Your task to perform on an android device: Do I have any events today? Image 0: 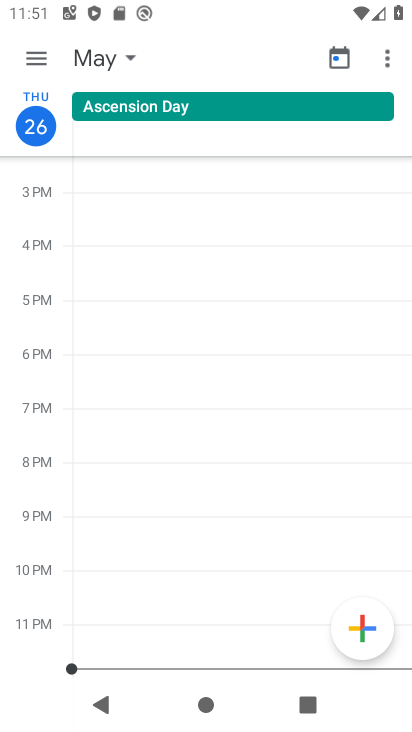
Step 0: press home button
Your task to perform on an android device: Do I have any events today? Image 1: 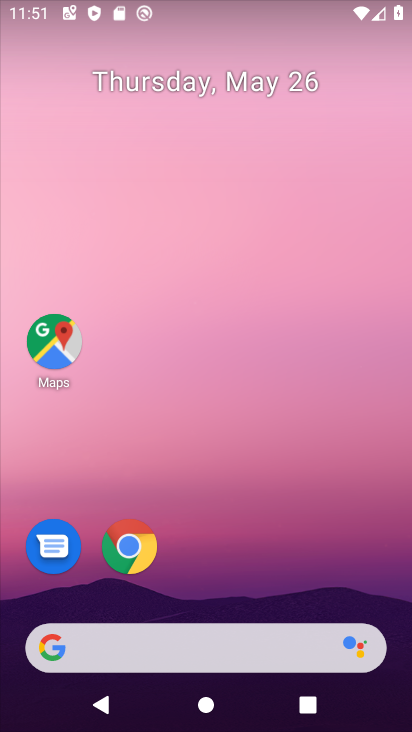
Step 1: drag from (237, 417) to (179, 142)
Your task to perform on an android device: Do I have any events today? Image 2: 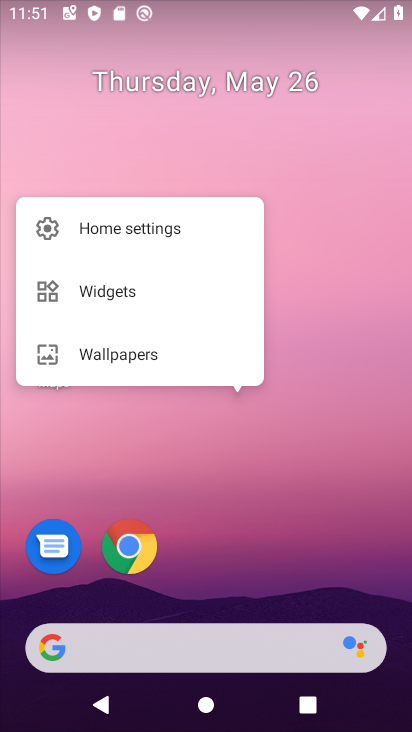
Step 2: drag from (212, 476) to (204, 88)
Your task to perform on an android device: Do I have any events today? Image 3: 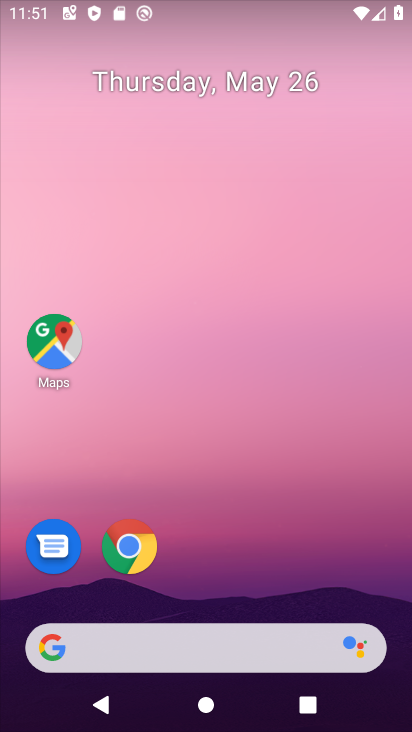
Step 3: click (329, 211)
Your task to perform on an android device: Do I have any events today? Image 4: 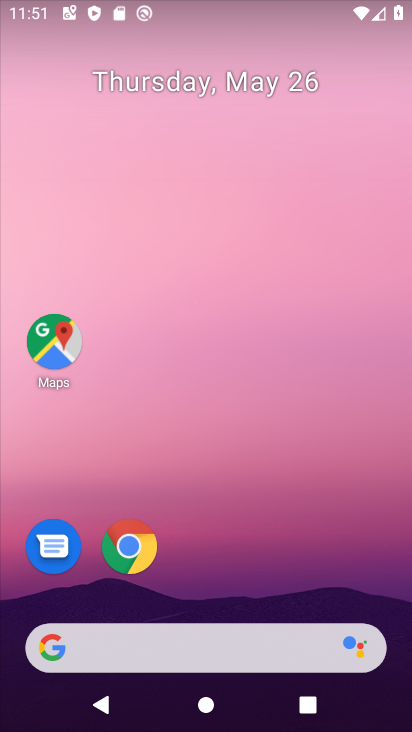
Step 4: drag from (250, 539) to (224, 144)
Your task to perform on an android device: Do I have any events today? Image 5: 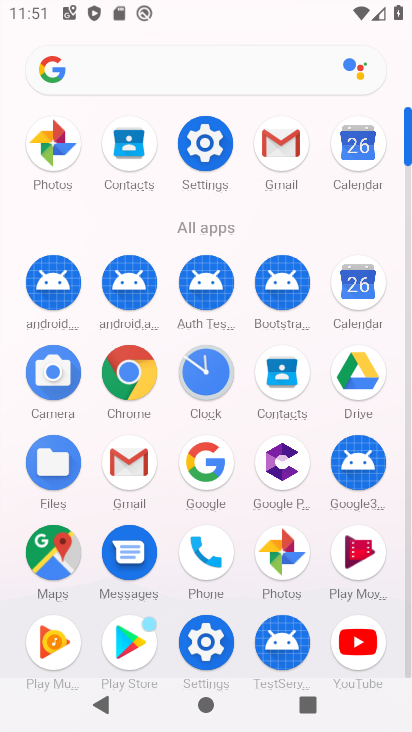
Step 5: click (354, 294)
Your task to perform on an android device: Do I have any events today? Image 6: 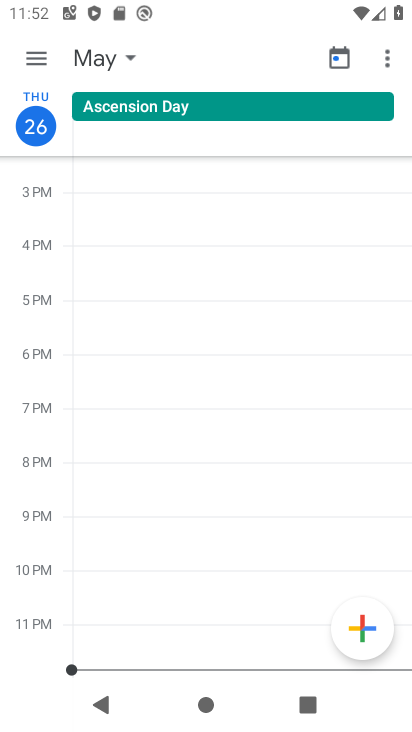
Step 6: task complete